Your task to perform on an android device: toggle javascript in the chrome app Image 0: 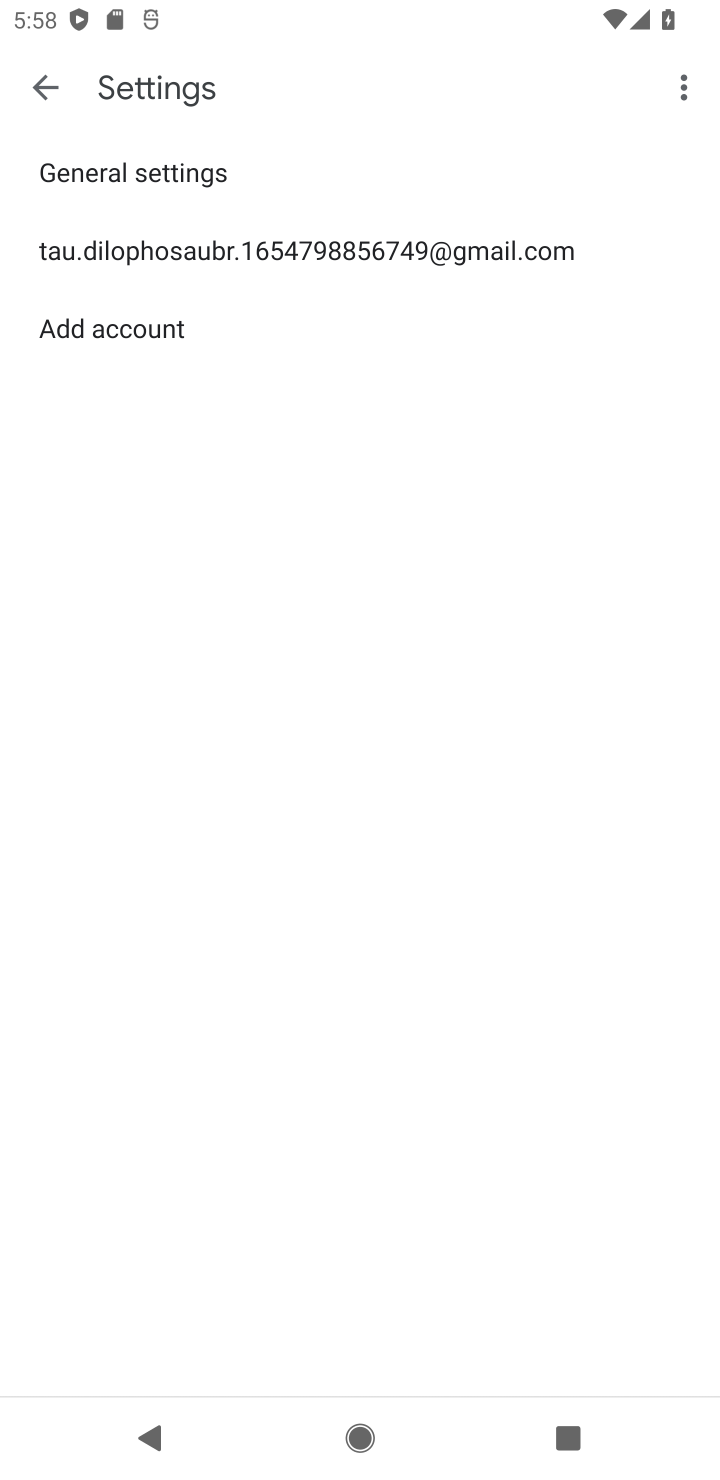
Step 0: press home button
Your task to perform on an android device: toggle javascript in the chrome app Image 1: 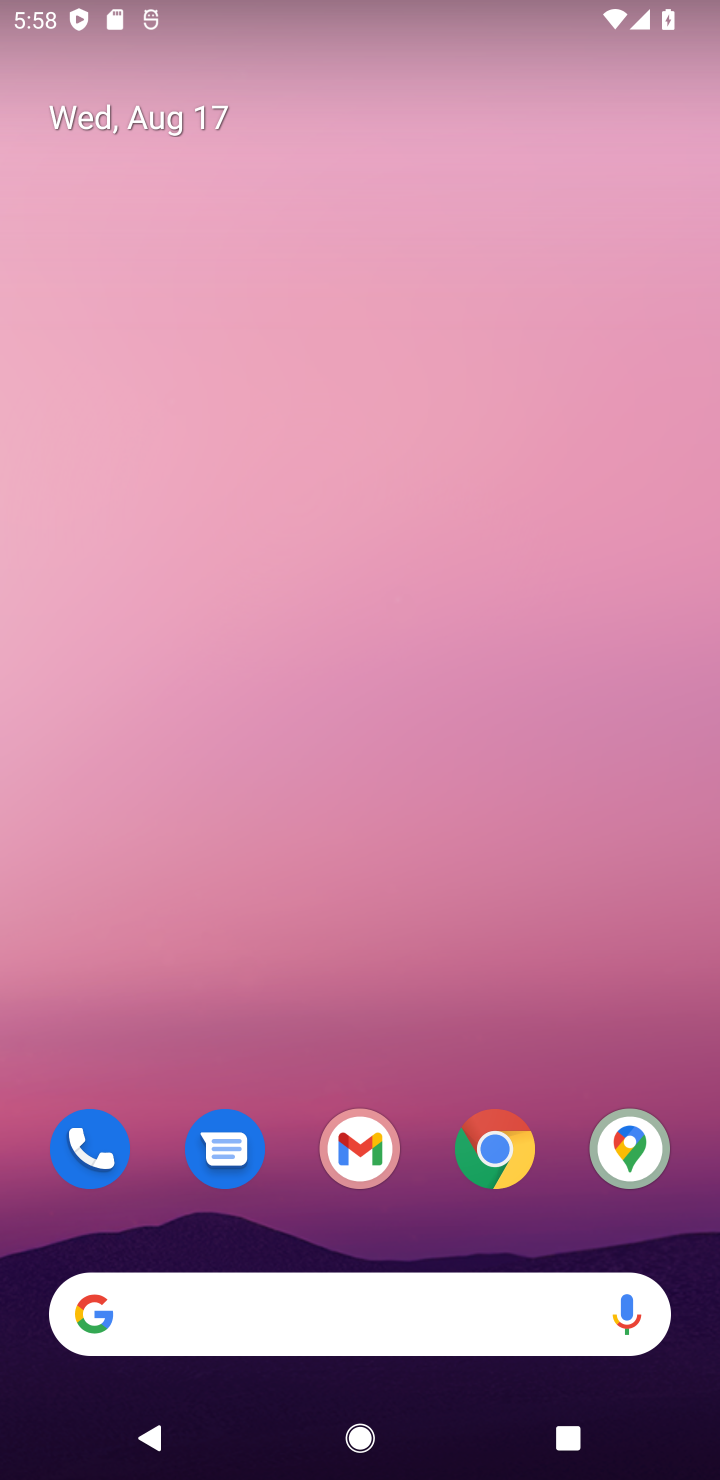
Step 1: click (495, 1155)
Your task to perform on an android device: toggle javascript in the chrome app Image 2: 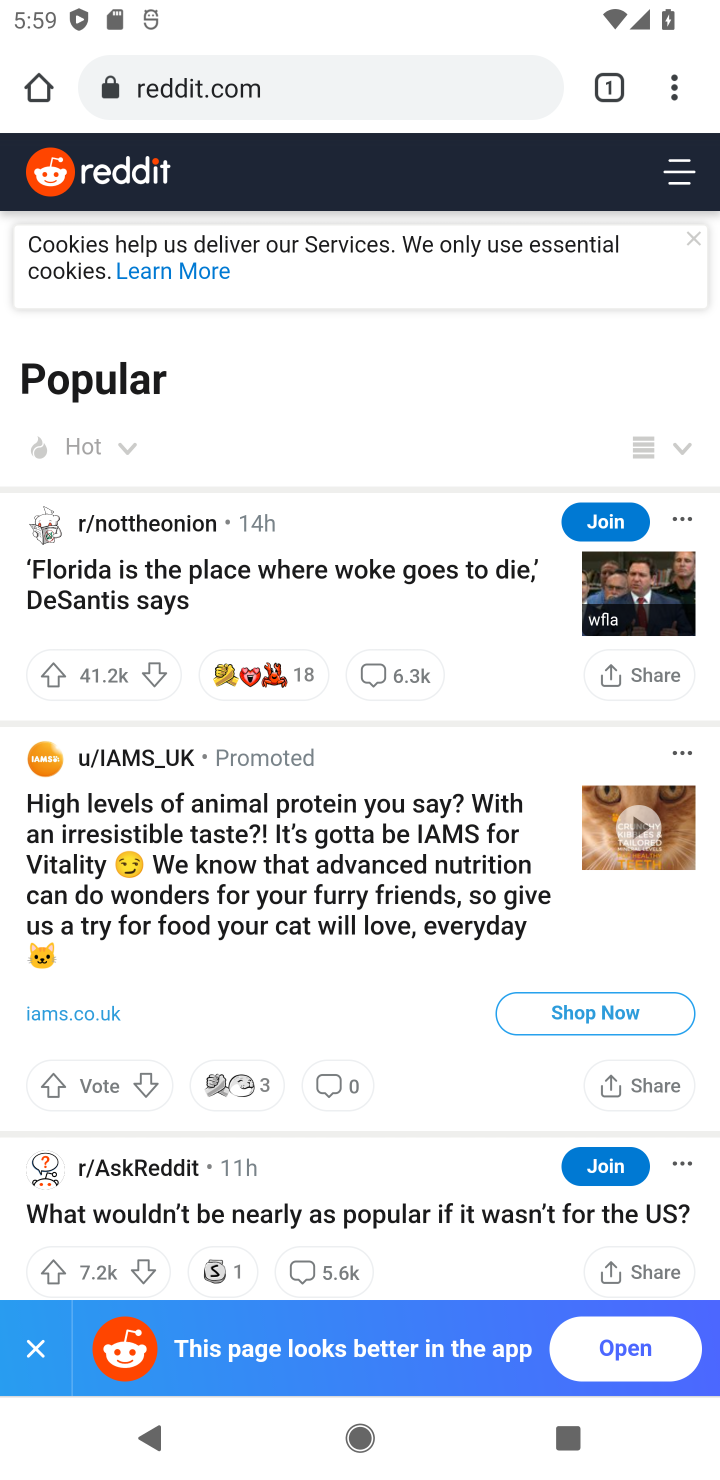
Step 2: click (661, 90)
Your task to perform on an android device: toggle javascript in the chrome app Image 3: 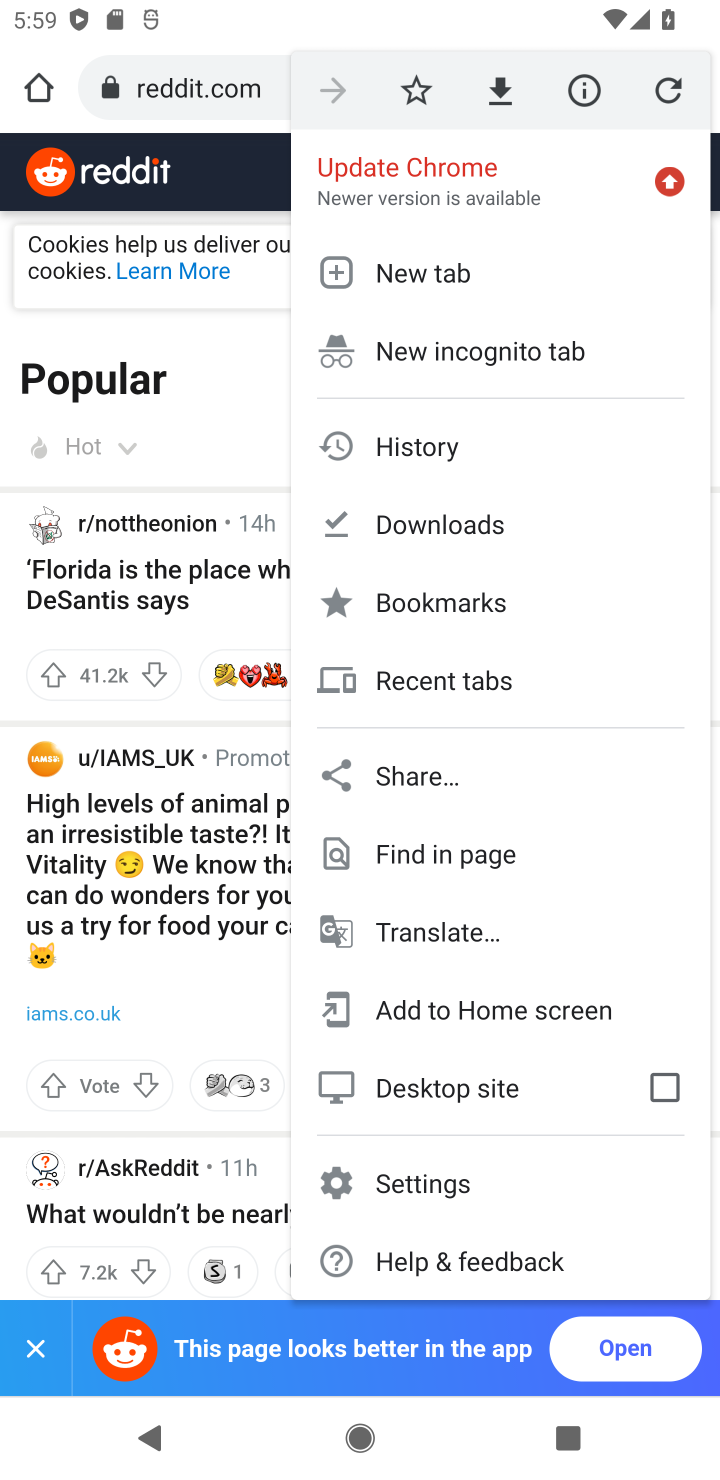
Step 3: click (440, 1183)
Your task to perform on an android device: toggle javascript in the chrome app Image 4: 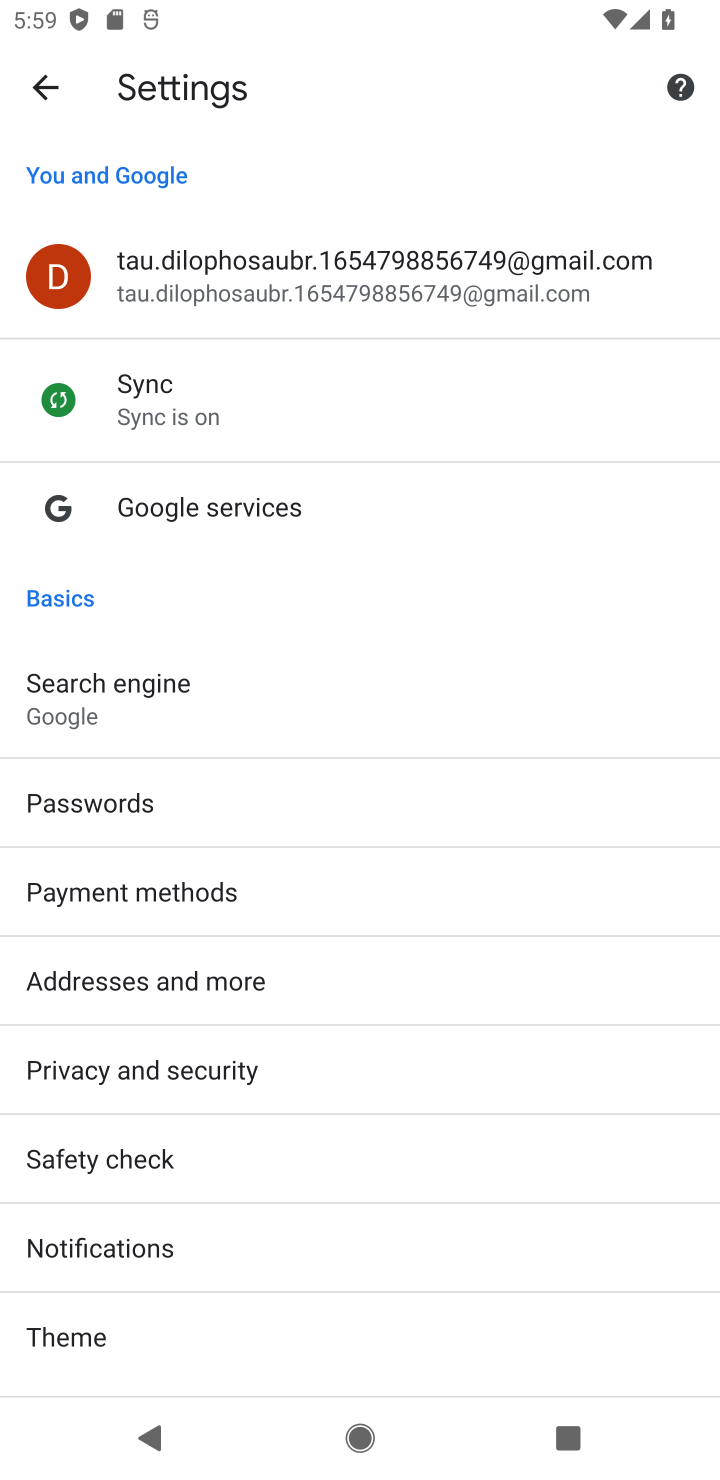
Step 4: drag from (333, 1203) to (165, 485)
Your task to perform on an android device: toggle javascript in the chrome app Image 5: 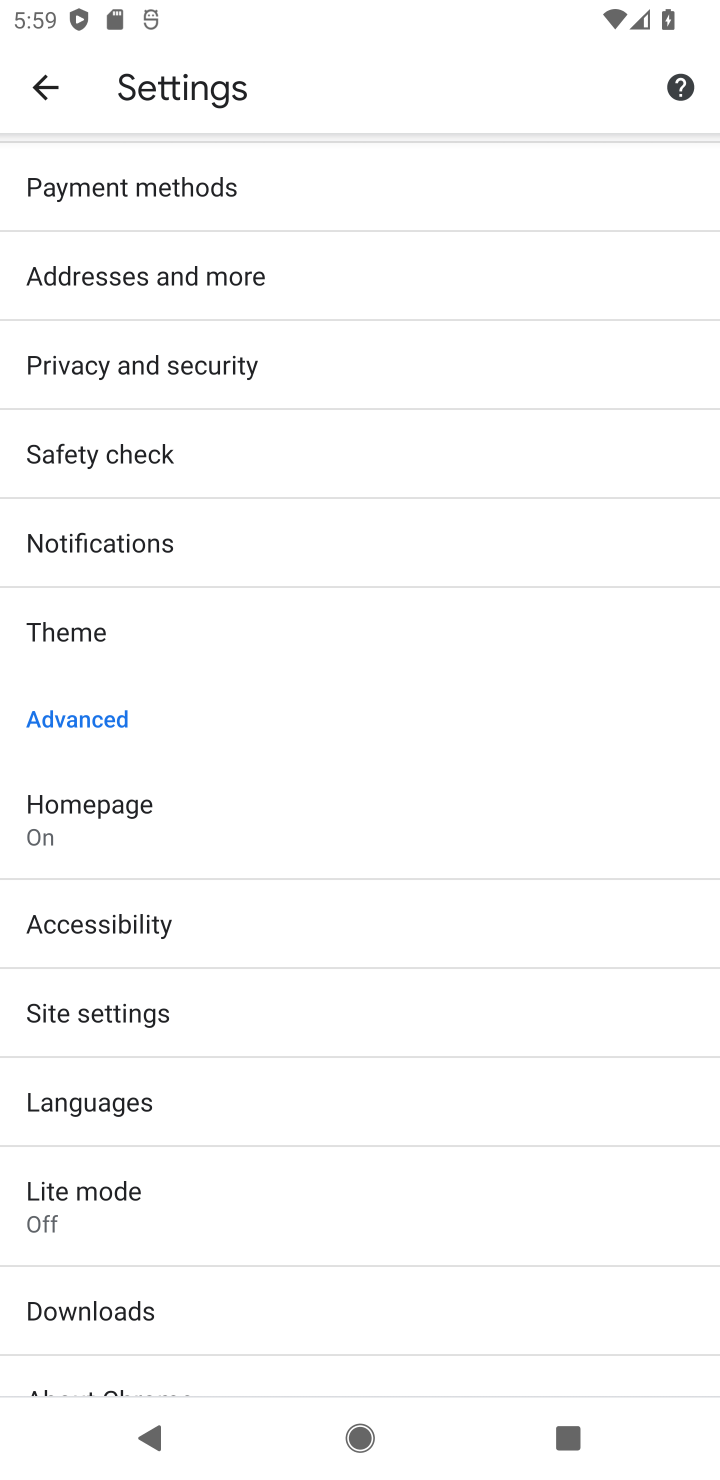
Step 5: click (88, 1011)
Your task to perform on an android device: toggle javascript in the chrome app Image 6: 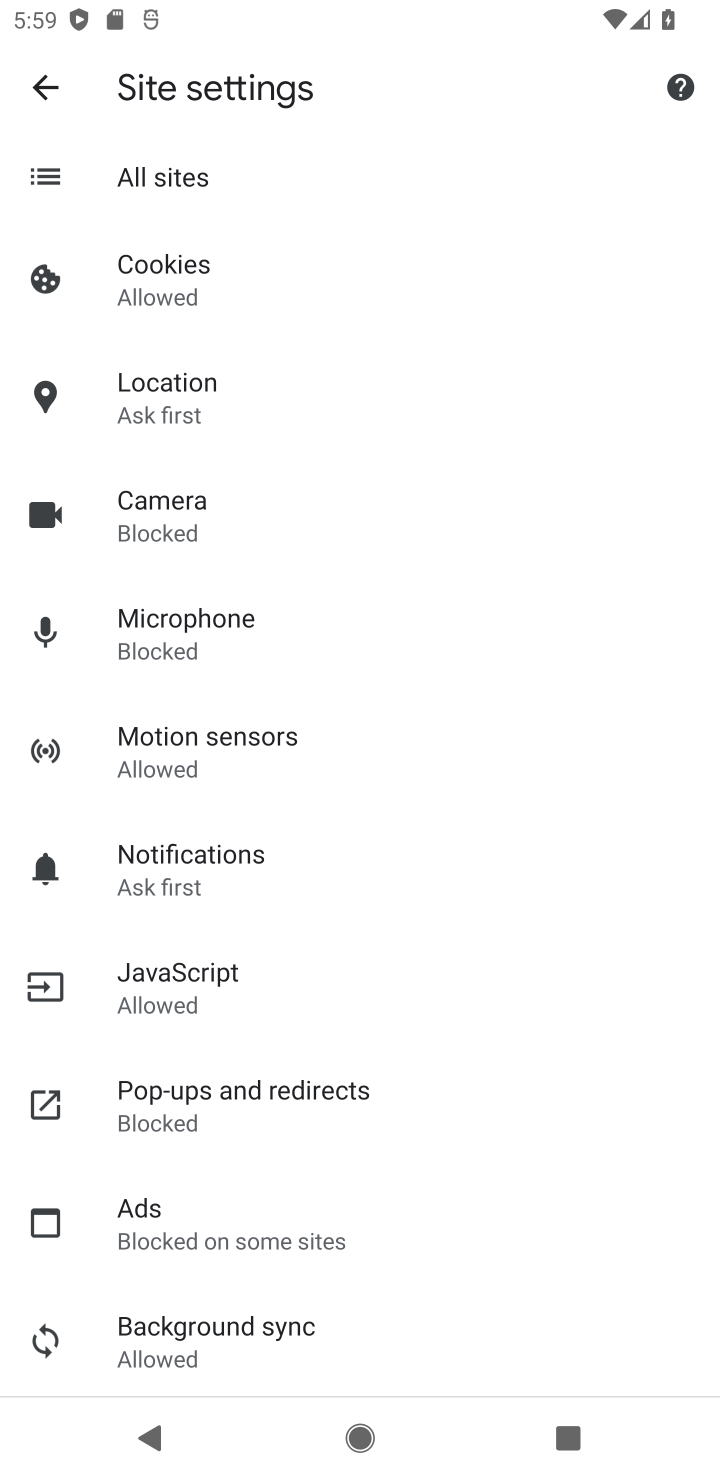
Step 6: click (169, 967)
Your task to perform on an android device: toggle javascript in the chrome app Image 7: 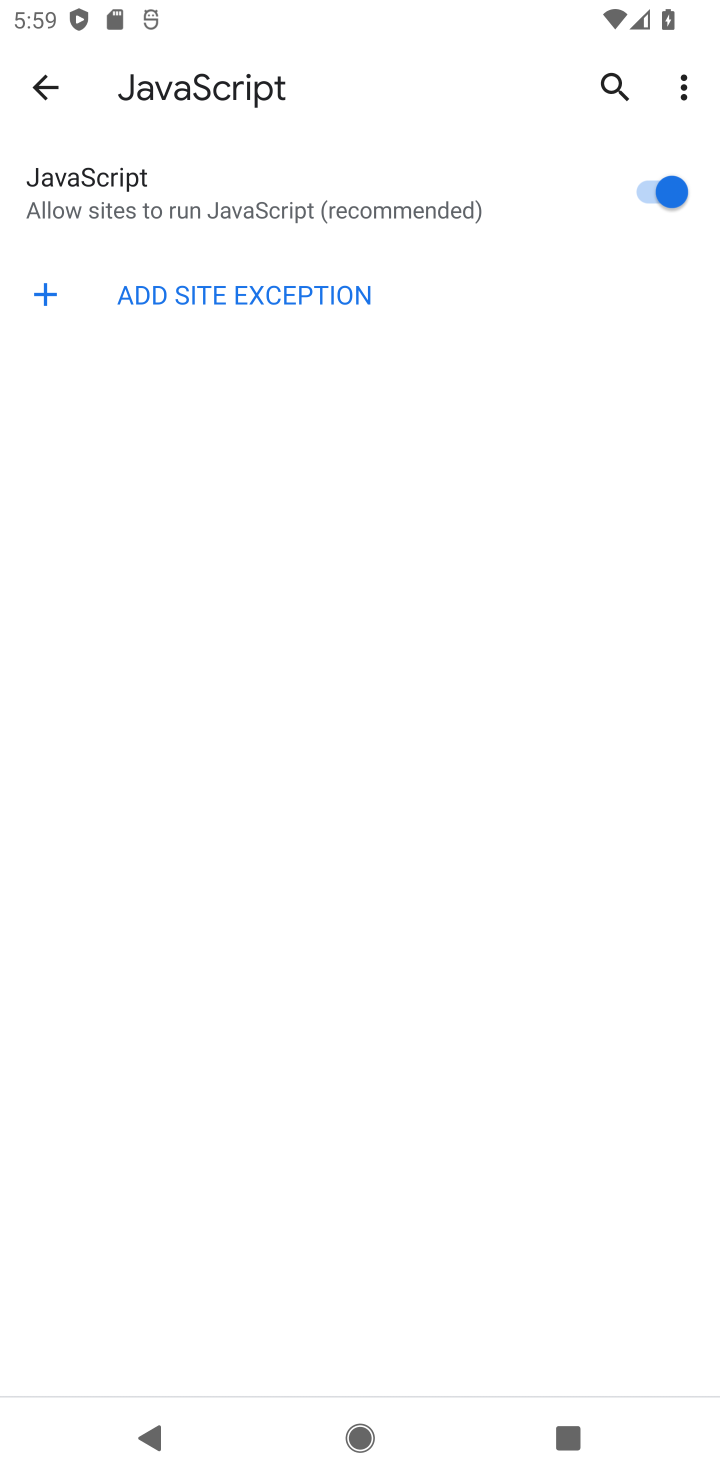
Step 7: click (645, 204)
Your task to perform on an android device: toggle javascript in the chrome app Image 8: 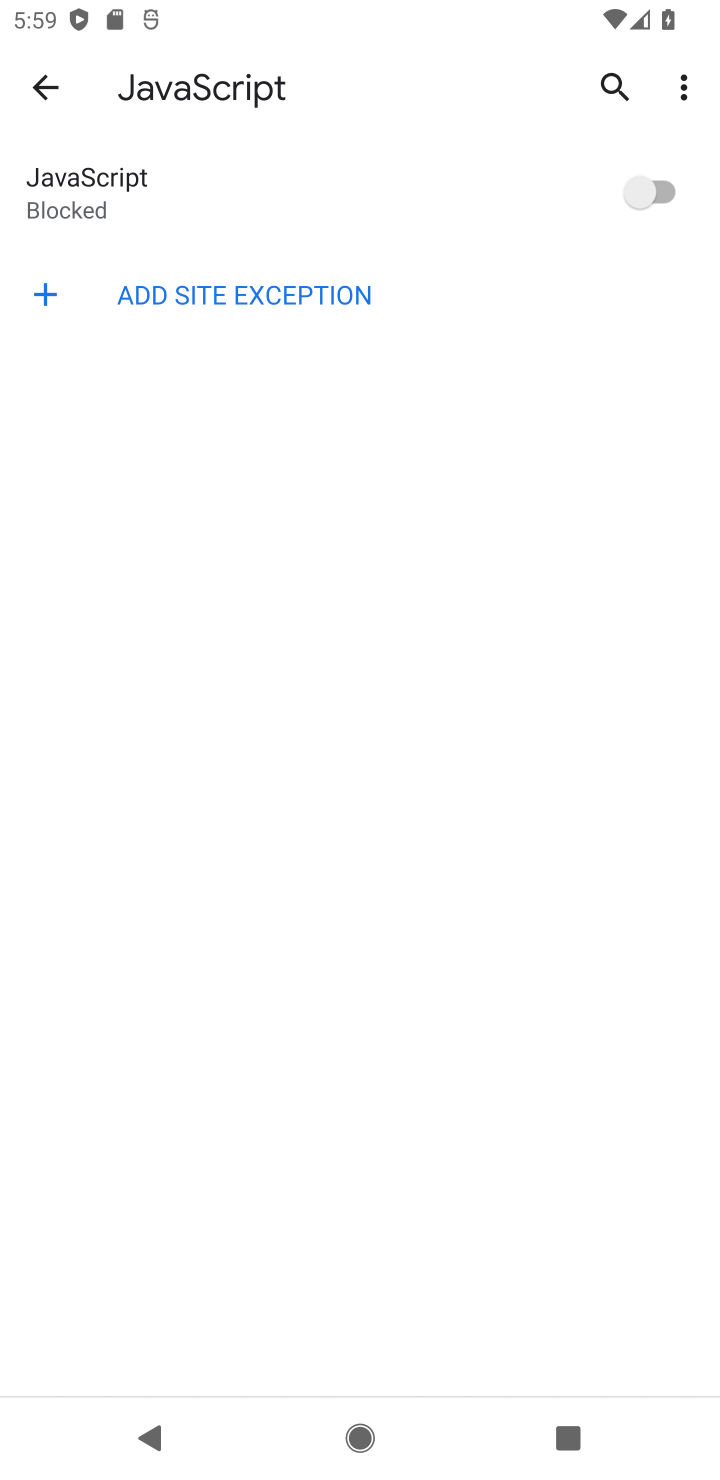
Step 8: task complete